Your task to perform on an android device: turn off translation in the chrome app Image 0: 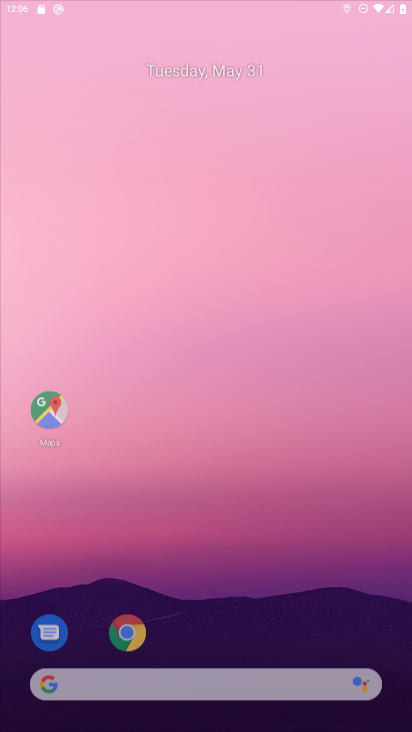
Step 0: drag from (244, 56) to (185, 6)
Your task to perform on an android device: turn off translation in the chrome app Image 1: 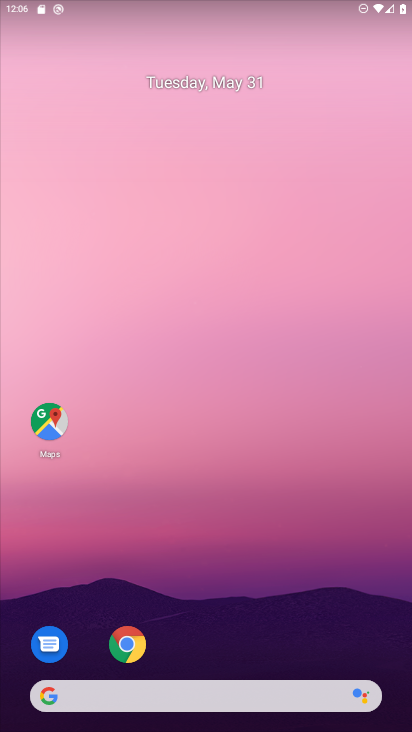
Step 1: drag from (159, 501) to (114, 78)
Your task to perform on an android device: turn off translation in the chrome app Image 2: 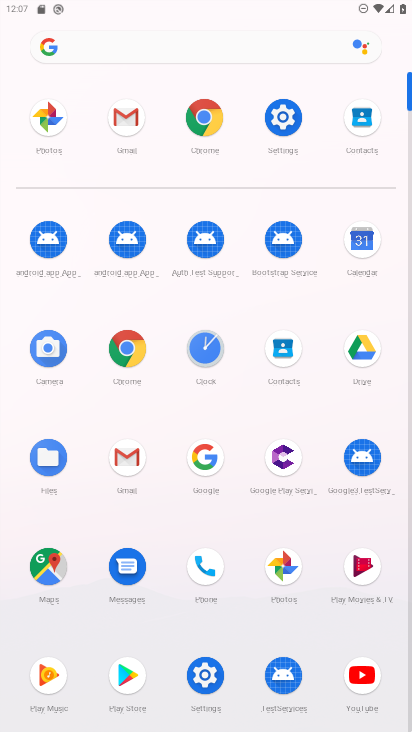
Step 2: click (125, 335)
Your task to perform on an android device: turn off translation in the chrome app Image 3: 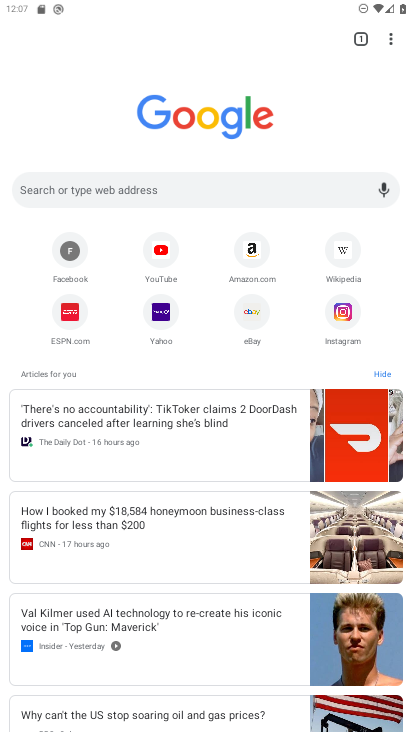
Step 3: drag from (192, 602) to (203, 318)
Your task to perform on an android device: turn off translation in the chrome app Image 4: 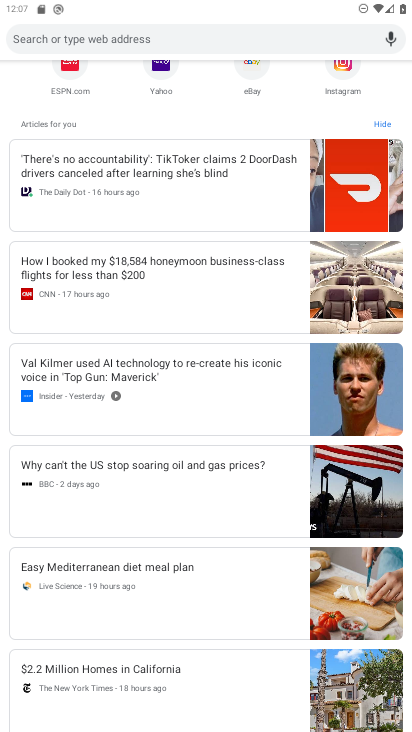
Step 4: drag from (115, 638) to (168, 239)
Your task to perform on an android device: turn off translation in the chrome app Image 5: 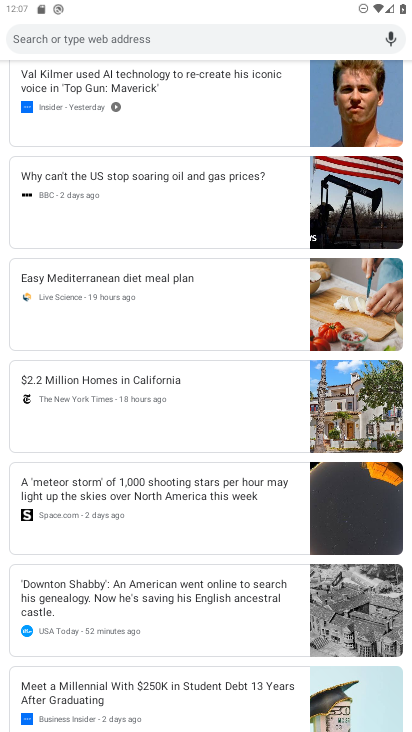
Step 5: drag from (167, 626) to (160, 228)
Your task to perform on an android device: turn off translation in the chrome app Image 6: 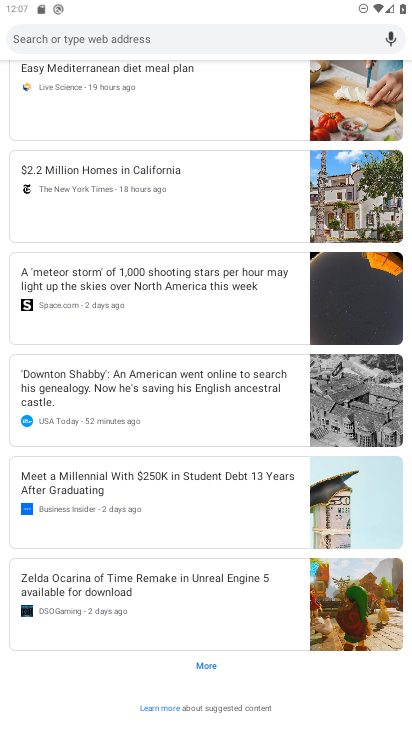
Step 6: drag from (150, 186) to (233, 724)
Your task to perform on an android device: turn off translation in the chrome app Image 7: 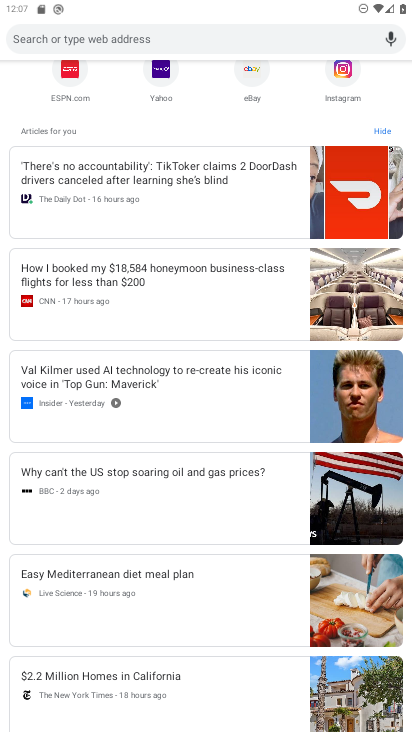
Step 7: drag from (174, 210) to (217, 729)
Your task to perform on an android device: turn off translation in the chrome app Image 8: 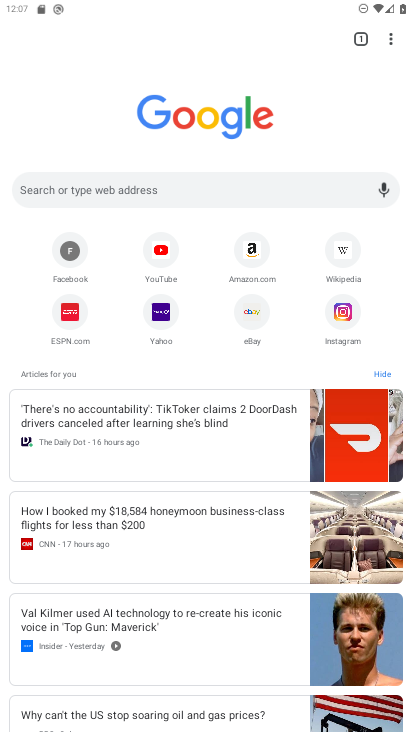
Step 8: drag from (387, 36) to (281, 373)
Your task to perform on an android device: turn off translation in the chrome app Image 9: 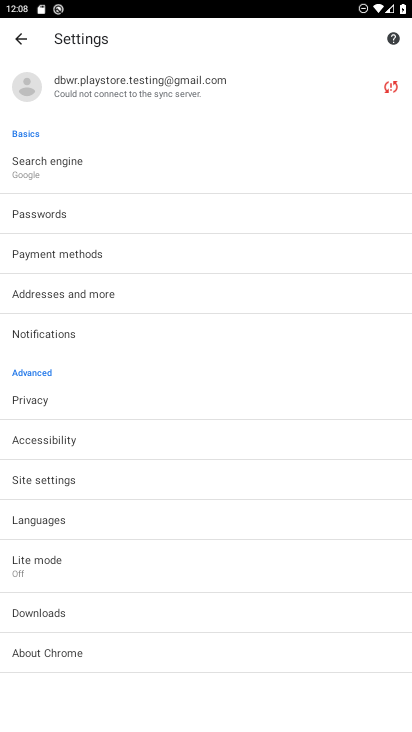
Step 9: click (73, 524)
Your task to perform on an android device: turn off translation in the chrome app Image 10: 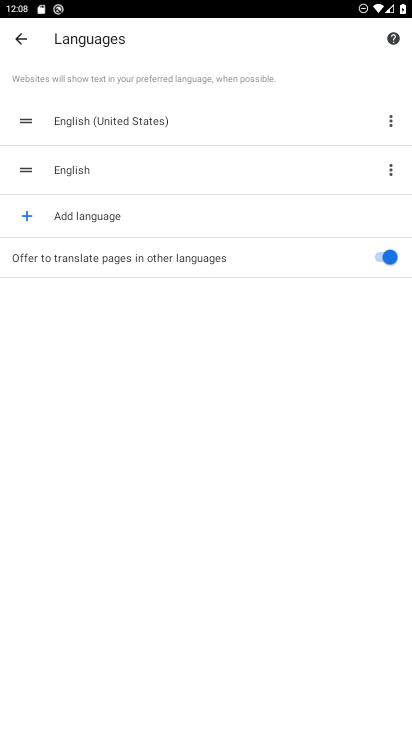
Step 10: click (376, 249)
Your task to perform on an android device: turn off translation in the chrome app Image 11: 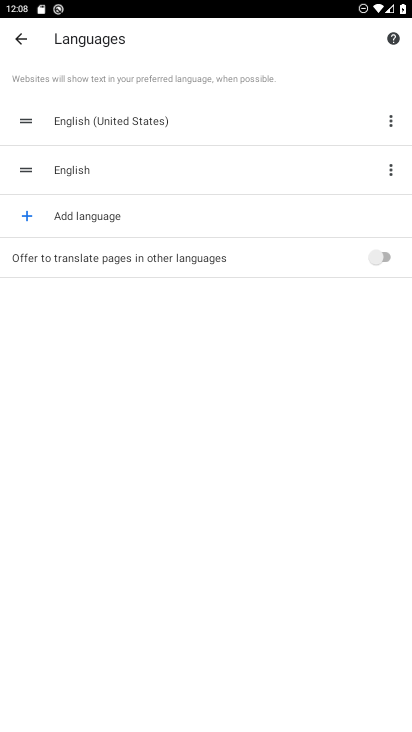
Step 11: task complete